Your task to perform on an android device: check storage Image 0: 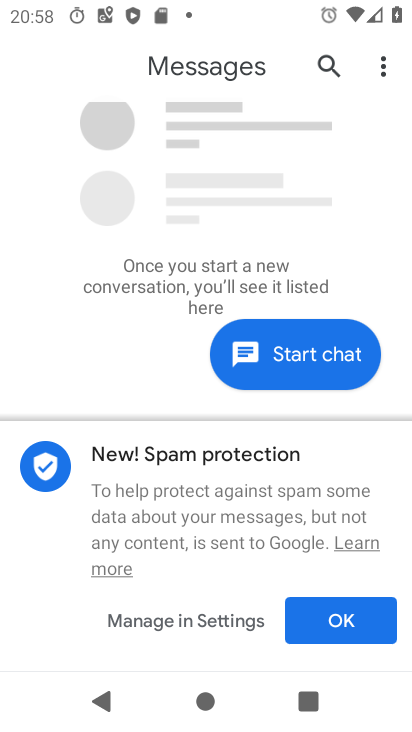
Step 0: press home button
Your task to perform on an android device: check storage Image 1: 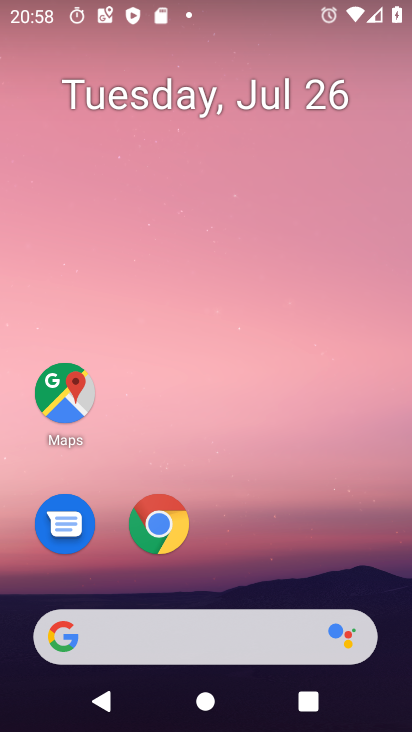
Step 1: drag from (280, 552) to (272, 61)
Your task to perform on an android device: check storage Image 2: 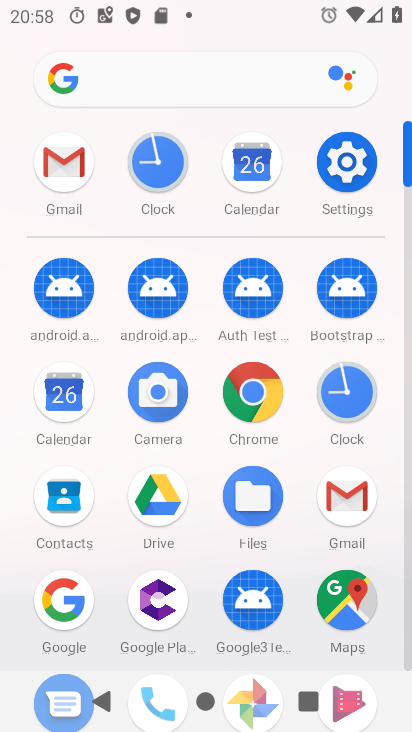
Step 2: click (355, 155)
Your task to perform on an android device: check storage Image 3: 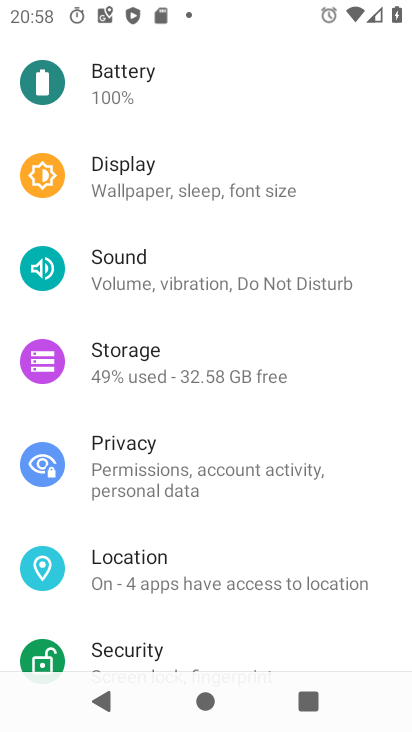
Step 3: click (213, 367)
Your task to perform on an android device: check storage Image 4: 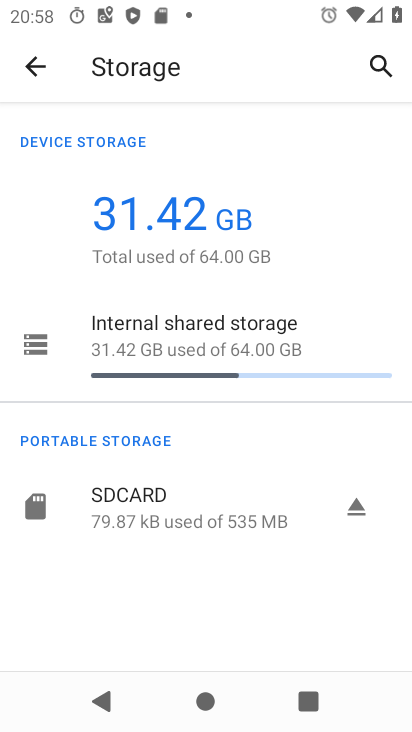
Step 4: task complete